Your task to perform on an android device: Open Yahoo.com Image 0: 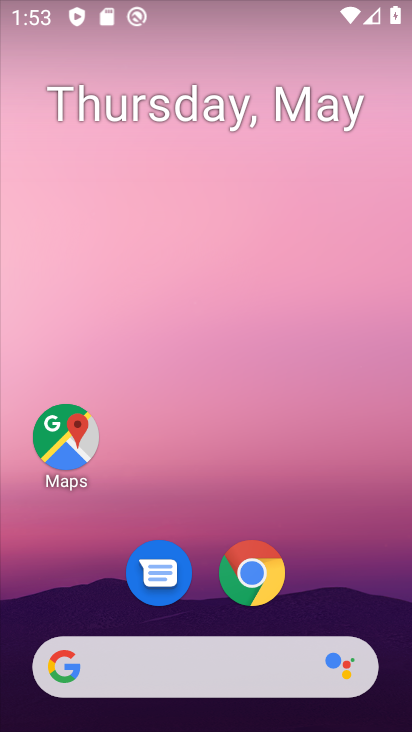
Step 0: click (279, 575)
Your task to perform on an android device: Open Yahoo.com Image 1: 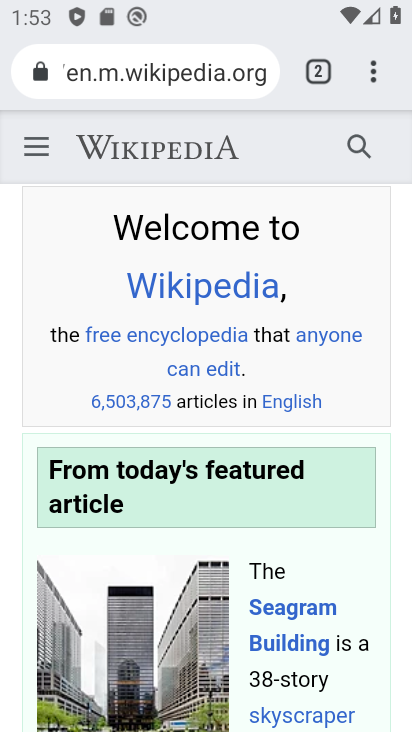
Step 1: click (326, 58)
Your task to perform on an android device: Open Yahoo.com Image 2: 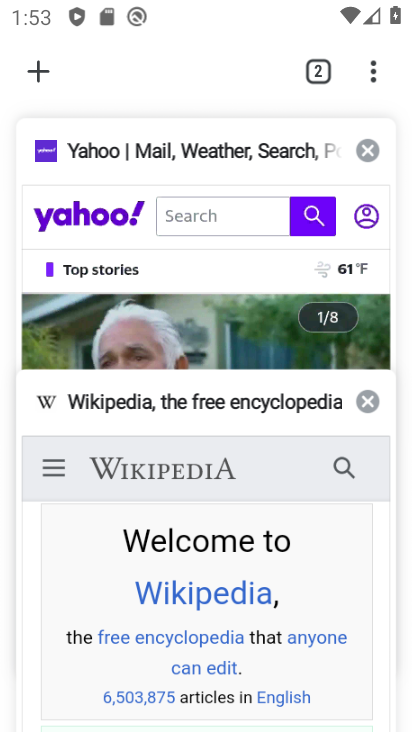
Step 2: click (264, 184)
Your task to perform on an android device: Open Yahoo.com Image 3: 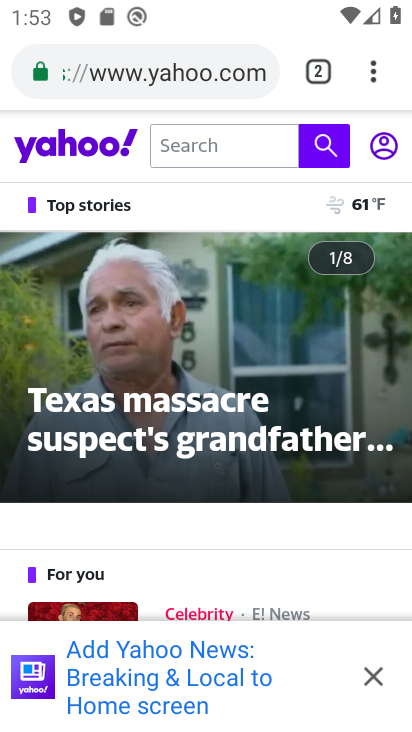
Step 3: task complete